Your task to perform on an android device: toggle notification dots Image 0: 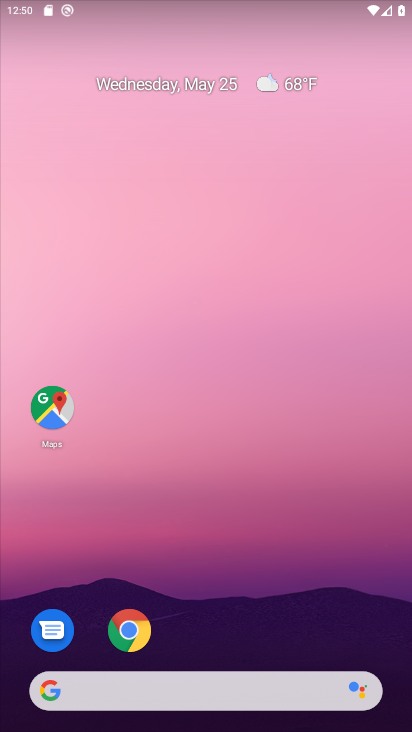
Step 0: drag from (233, 633) to (314, 129)
Your task to perform on an android device: toggle notification dots Image 1: 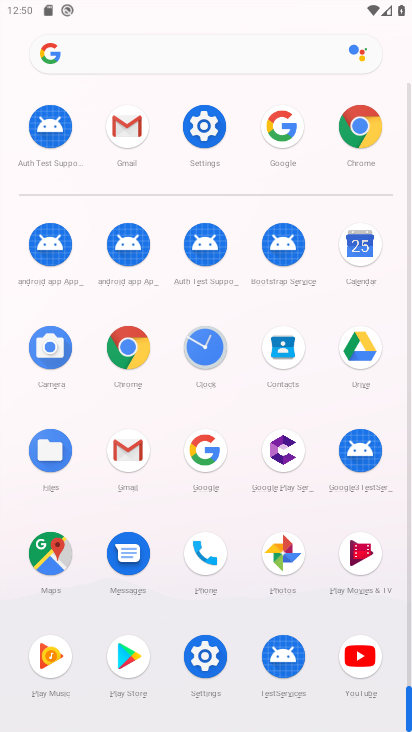
Step 1: click (217, 132)
Your task to perform on an android device: toggle notification dots Image 2: 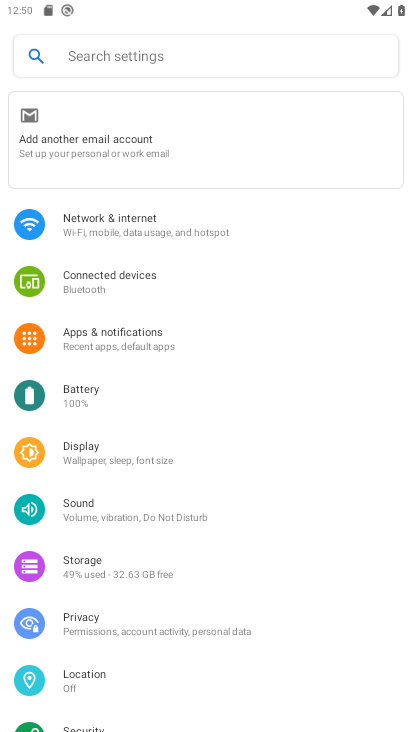
Step 2: click (165, 341)
Your task to perform on an android device: toggle notification dots Image 3: 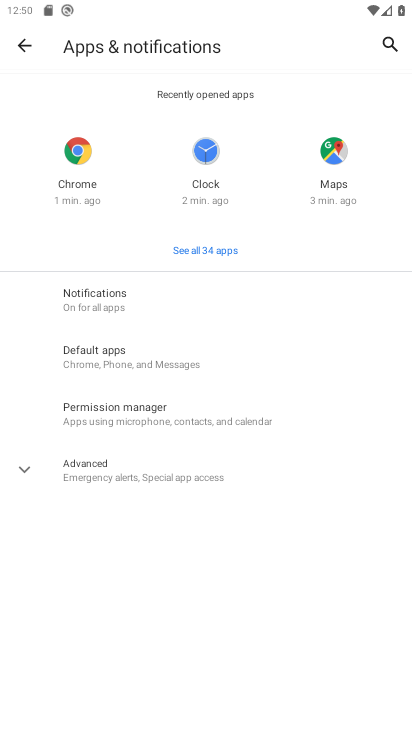
Step 3: click (155, 307)
Your task to perform on an android device: toggle notification dots Image 4: 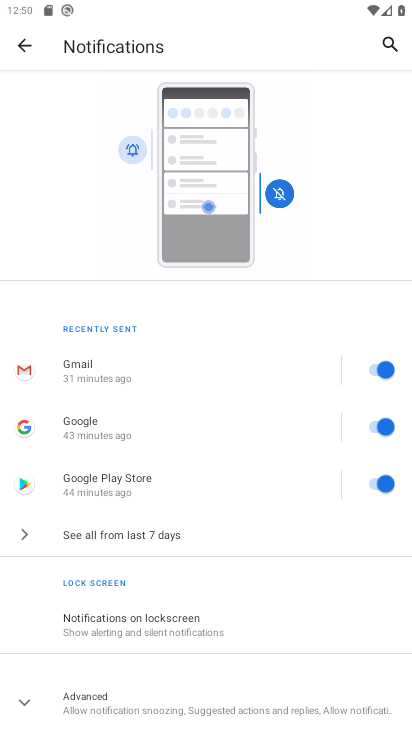
Step 4: drag from (209, 627) to (240, 325)
Your task to perform on an android device: toggle notification dots Image 5: 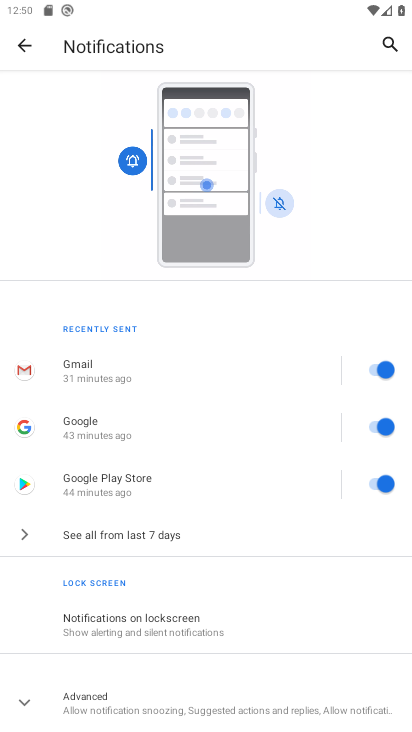
Step 5: click (191, 701)
Your task to perform on an android device: toggle notification dots Image 6: 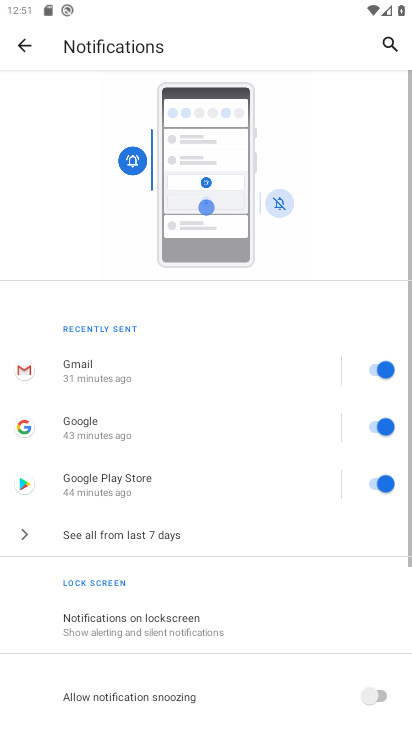
Step 6: task complete